Your task to perform on an android device: Open the Play Movies app and select the watchlist tab. Image 0: 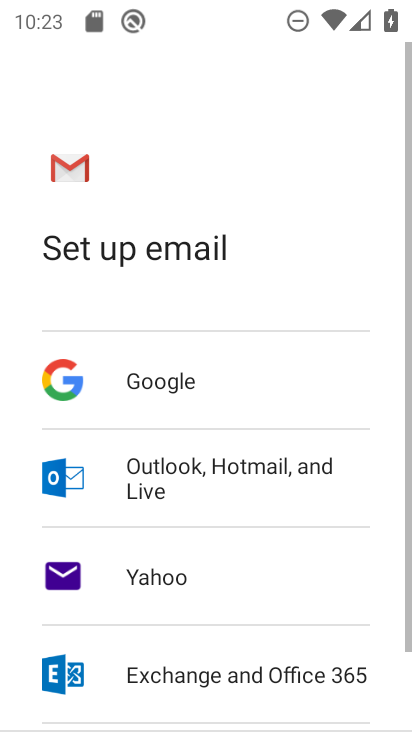
Step 0: press home button
Your task to perform on an android device: Open the Play Movies app and select the watchlist tab. Image 1: 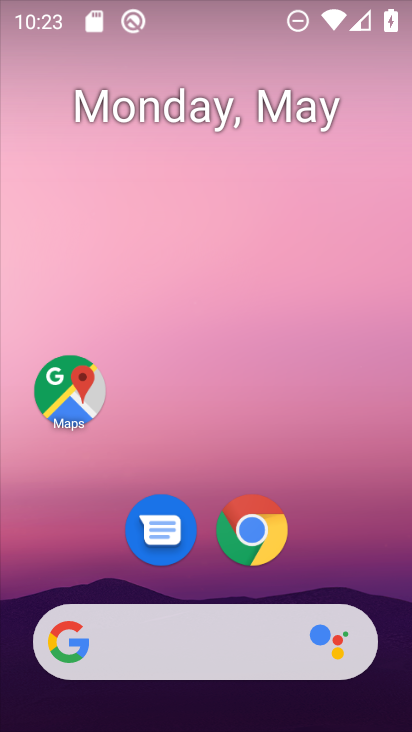
Step 1: drag from (179, 638) to (148, 37)
Your task to perform on an android device: Open the Play Movies app and select the watchlist tab. Image 2: 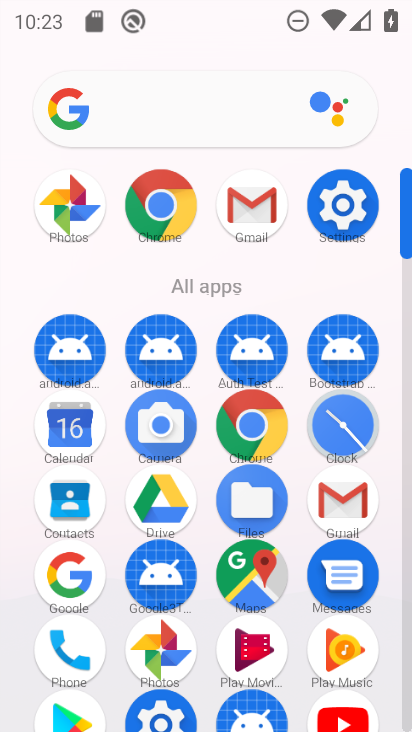
Step 2: click (253, 647)
Your task to perform on an android device: Open the Play Movies app and select the watchlist tab. Image 3: 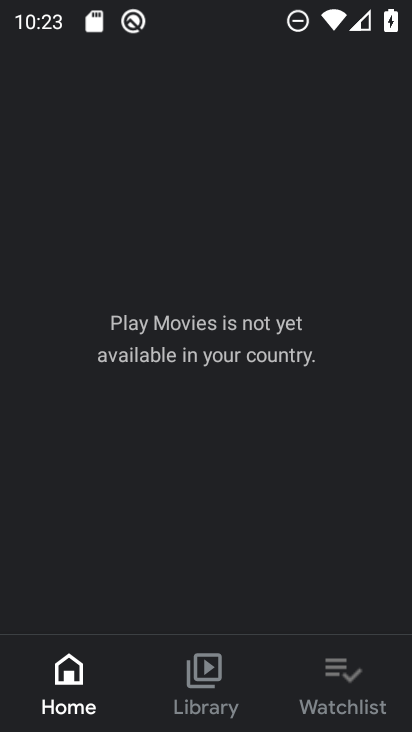
Step 3: click (333, 681)
Your task to perform on an android device: Open the Play Movies app and select the watchlist tab. Image 4: 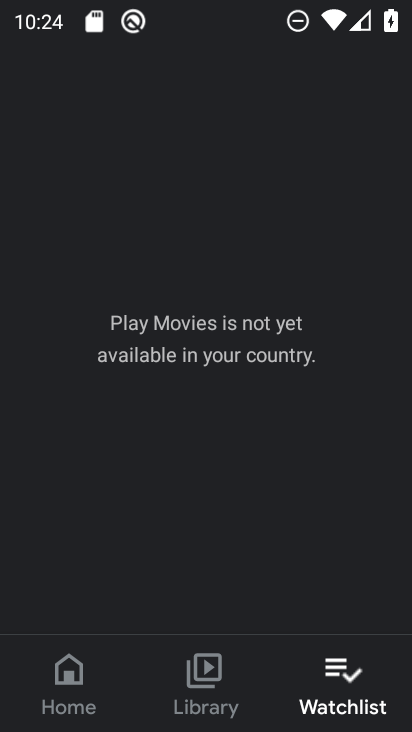
Step 4: task complete